Your task to perform on an android device: open app "Lyft - Rideshare, Bikes, Scooters & Transit" Image 0: 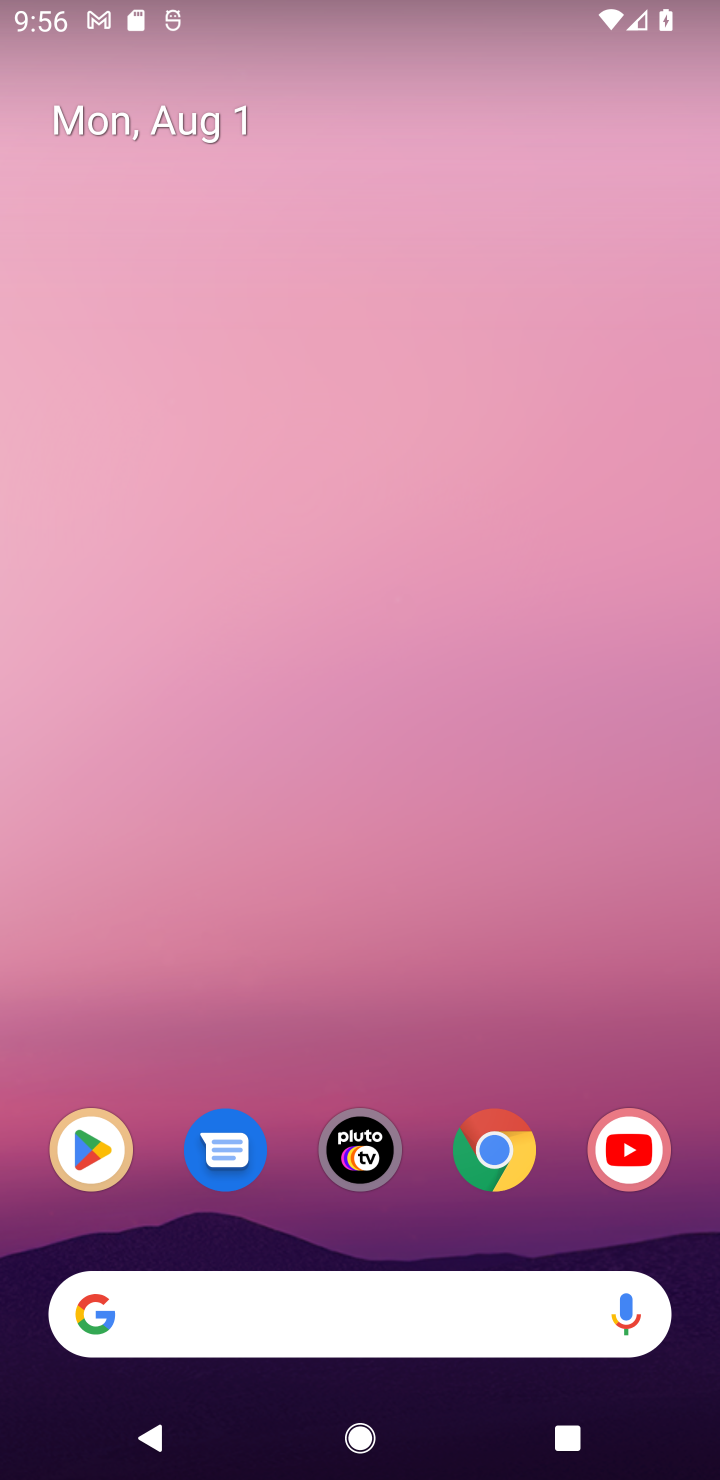
Step 0: click (117, 1146)
Your task to perform on an android device: open app "Lyft - Rideshare, Bikes, Scooters & Transit" Image 1: 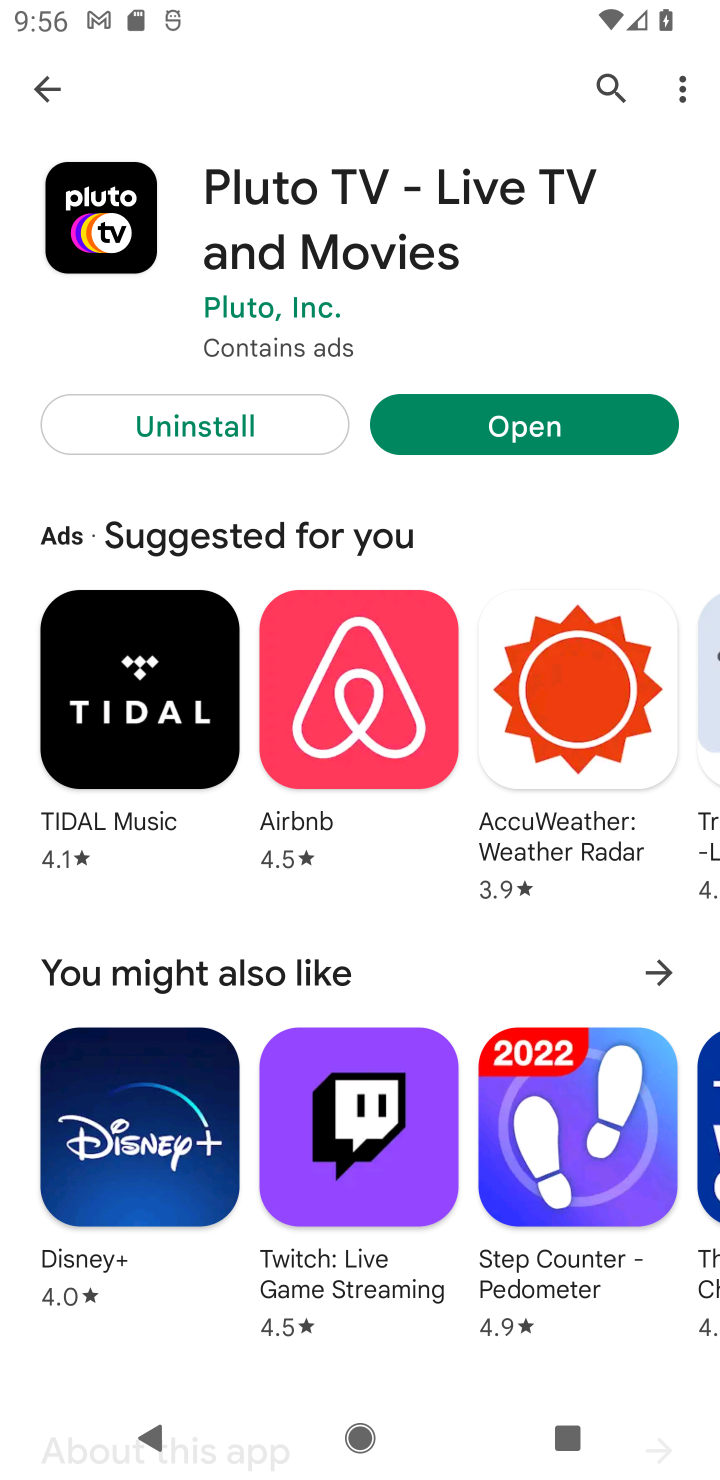
Step 1: click (602, 65)
Your task to perform on an android device: open app "Lyft - Rideshare, Bikes, Scooters & Transit" Image 2: 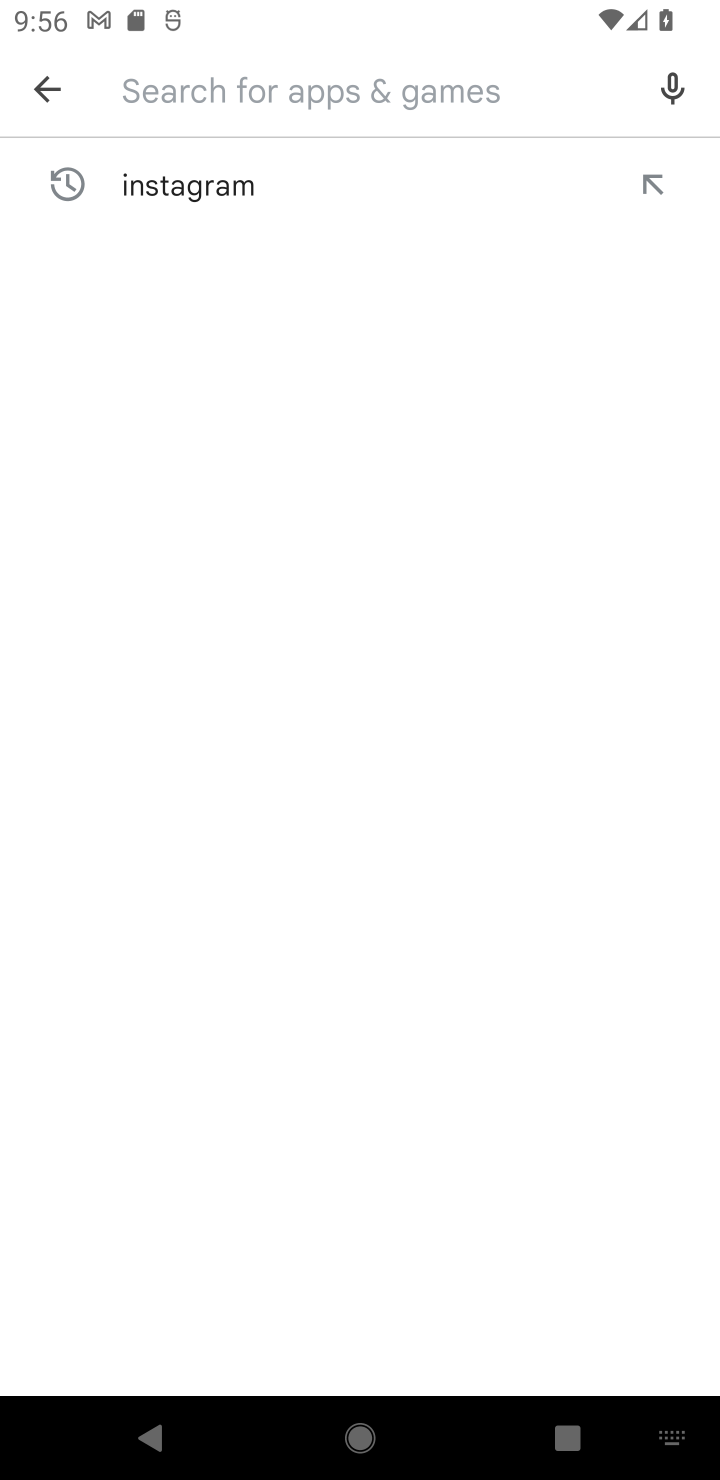
Step 2: type "Lyft - Rideshare, Bikes, Scooters & Transit"
Your task to perform on an android device: open app "Lyft - Rideshare, Bikes, Scooters & Transit" Image 3: 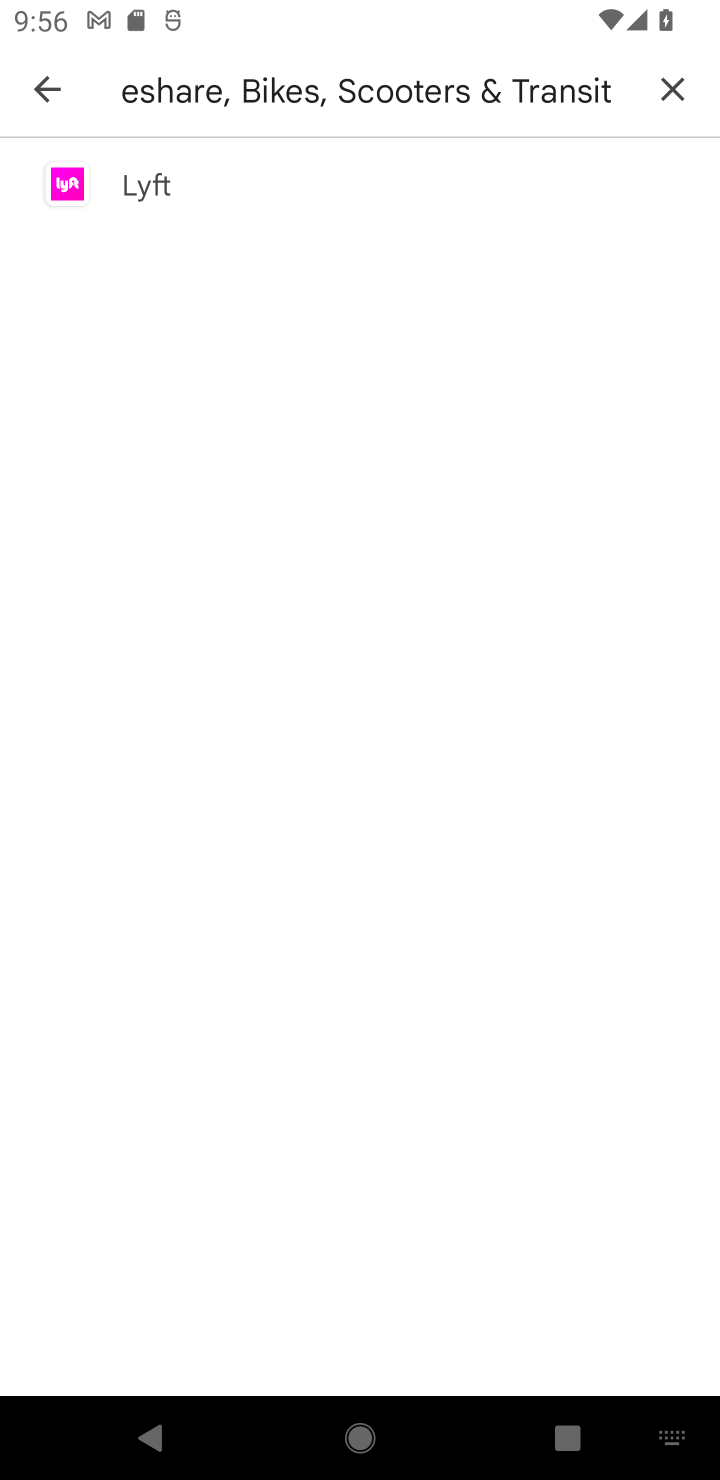
Step 3: click (197, 188)
Your task to perform on an android device: open app "Lyft - Rideshare, Bikes, Scooters & Transit" Image 4: 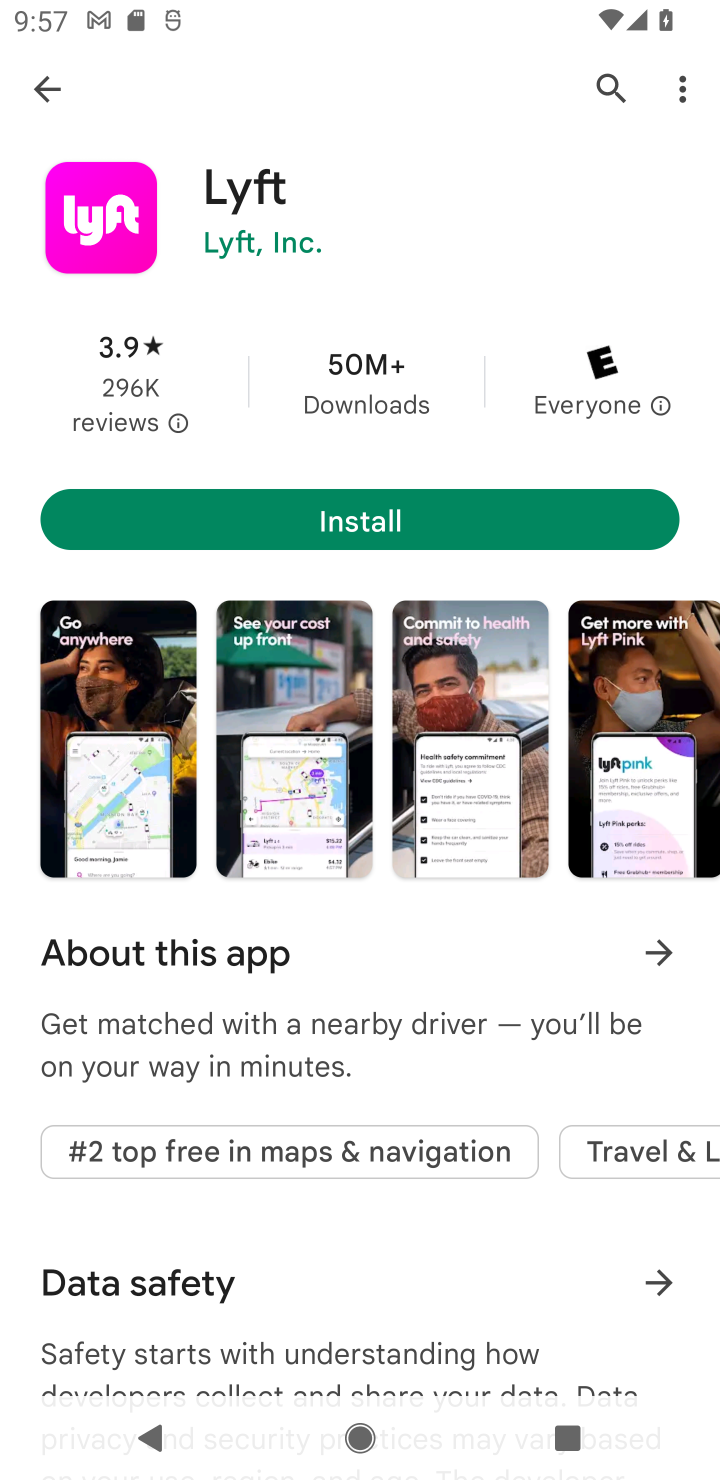
Step 4: task complete